Your task to perform on an android device: Open settings on Google Maps Image 0: 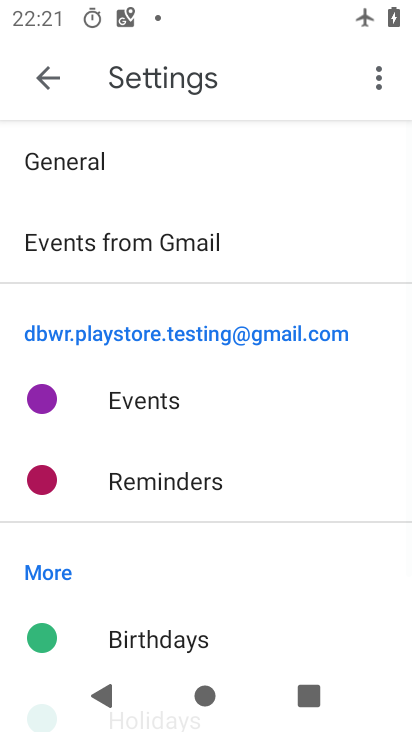
Step 0: drag from (222, 566) to (222, 292)
Your task to perform on an android device: Open settings on Google Maps Image 1: 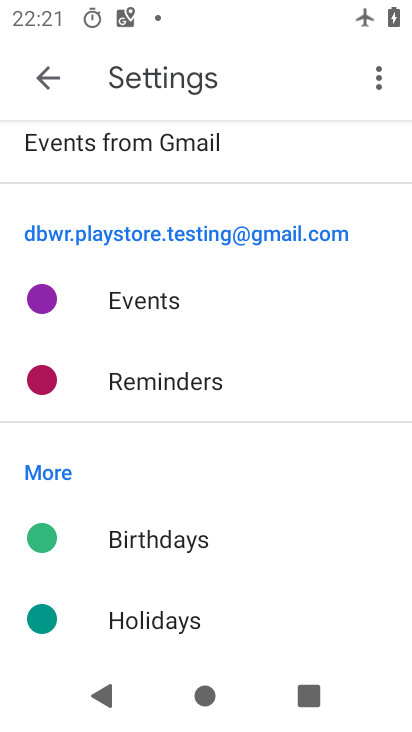
Step 1: drag from (198, 585) to (180, 437)
Your task to perform on an android device: Open settings on Google Maps Image 2: 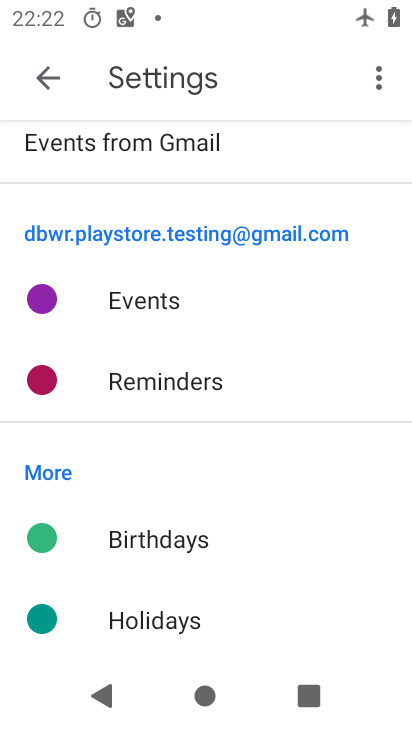
Step 2: drag from (231, 553) to (307, 30)
Your task to perform on an android device: Open settings on Google Maps Image 3: 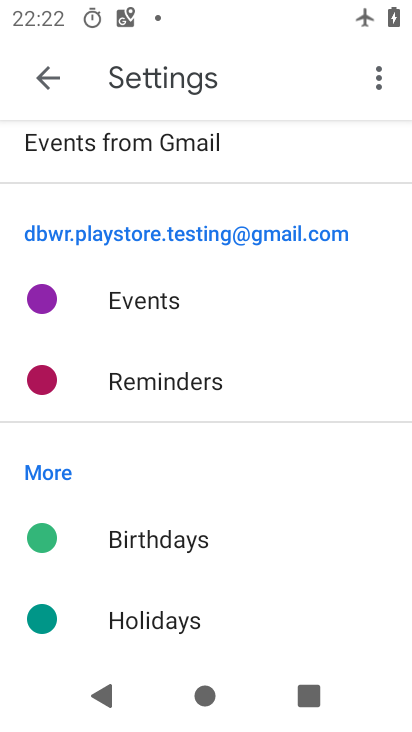
Step 3: drag from (219, 515) to (280, 106)
Your task to perform on an android device: Open settings on Google Maps Image 4: 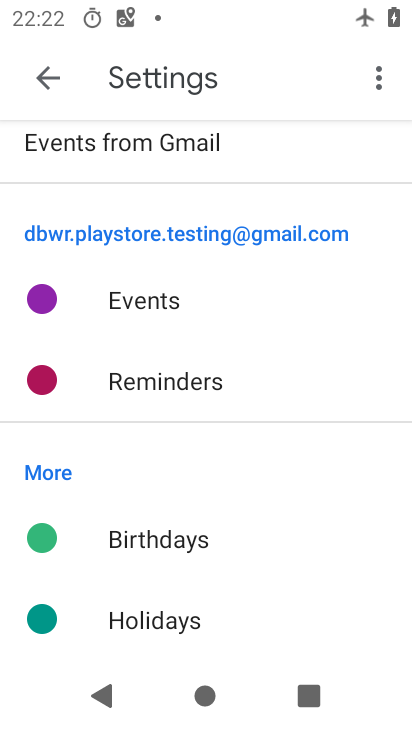
Step 4: press home button
Your task to perform on an android device: Open settings on Google Maps Image 5: 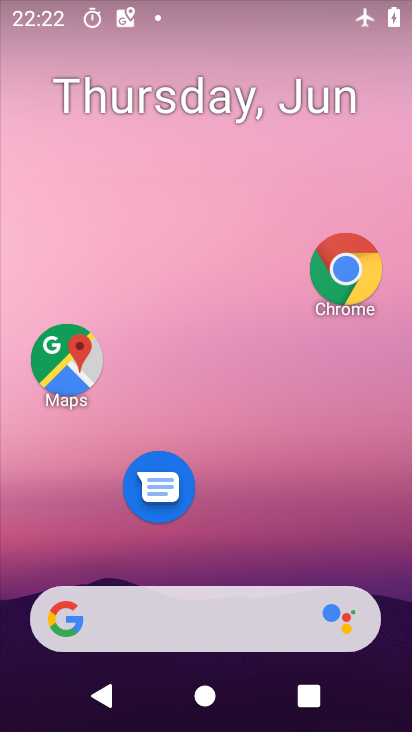
Step 5: drag from (136, 618) to (254, 180)
Your task to perform on an android device: Open settings on Google Maps Image 6: 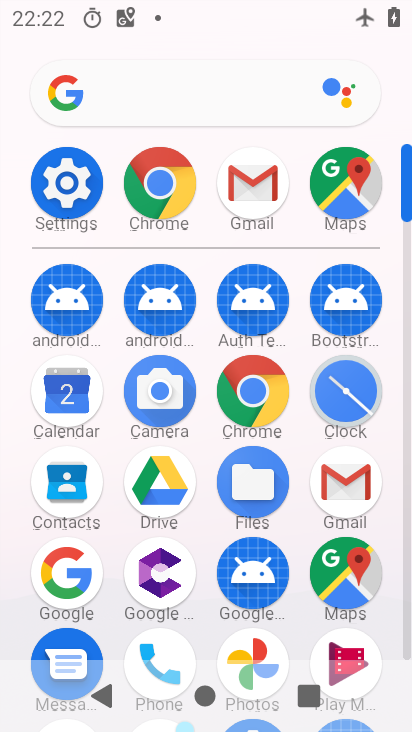
Step 6: click (350, 576)
Your task to perform on an android device: Open settings on Google Maps Image 7: 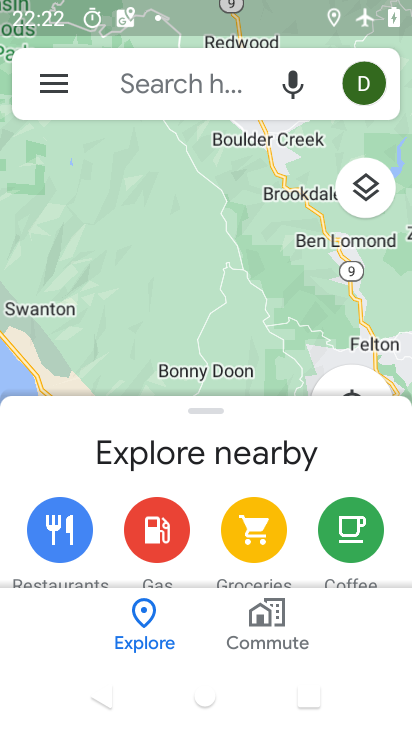
Step 7: click (48, 82)
Your task to perform on an android device: Open settings on Google Maps Image 8: 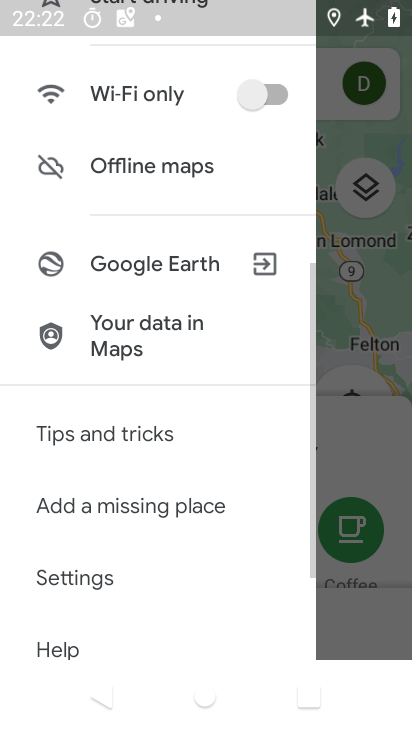
Step 8: click (109, 570)
Your task to perform on an android device: Open settings on Google Maps Image 9: 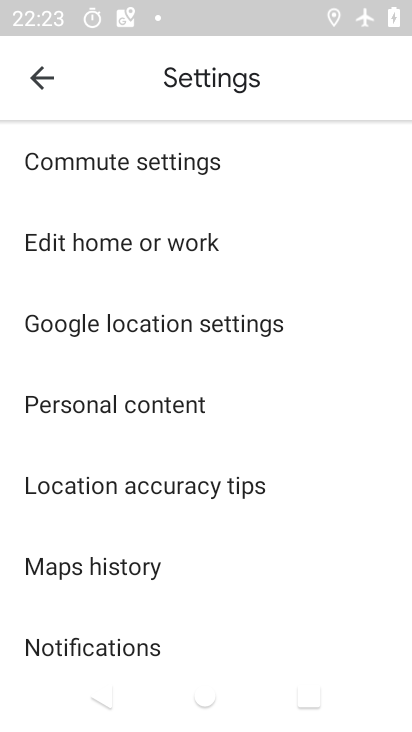
Step 9: task complete